Your task to perform on an android device: Go to location settings Image 0: 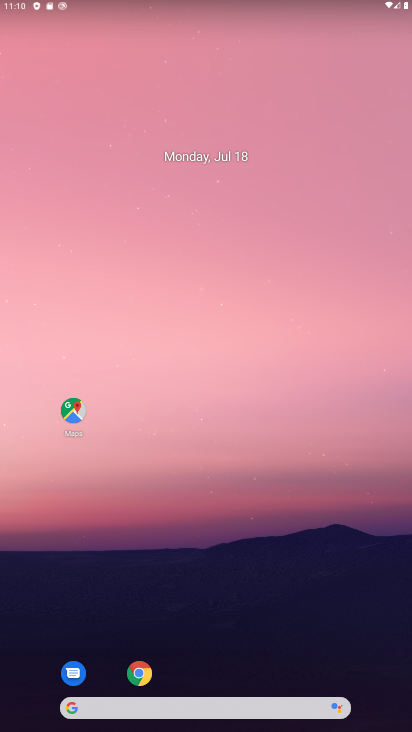
Step 0: drag from (218, 267) to (254, 0)
Your task to perform on an android device: Go to location settings Image 1: 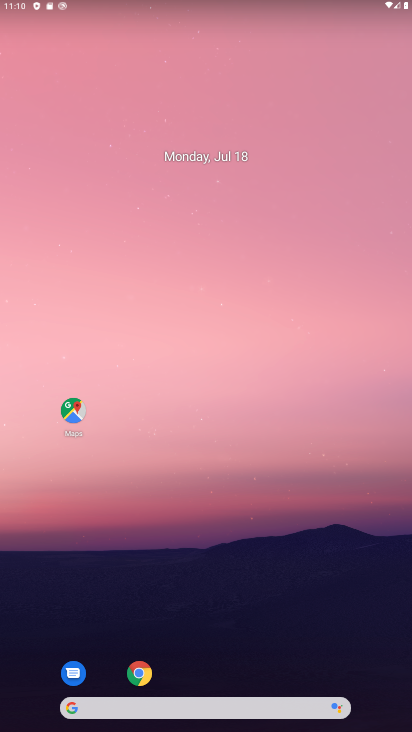
Step 1: drag from (219, 679) to (219, 37)
Your task to perform on an android device: Go to location settings Image 2: 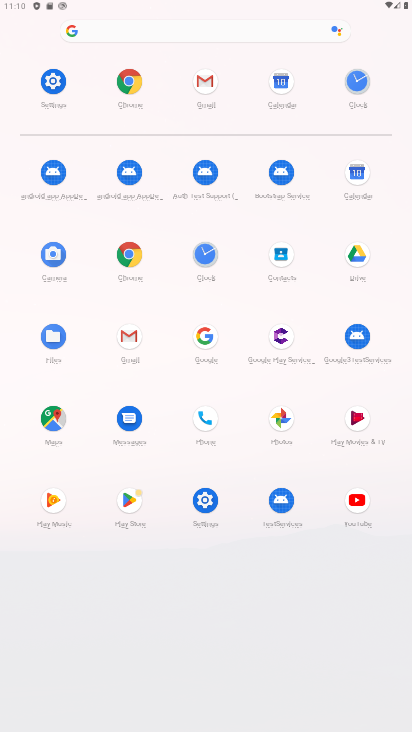
Step 2: click (49, 77)
Your task to perform on an android device: Go to location settings Image 3: 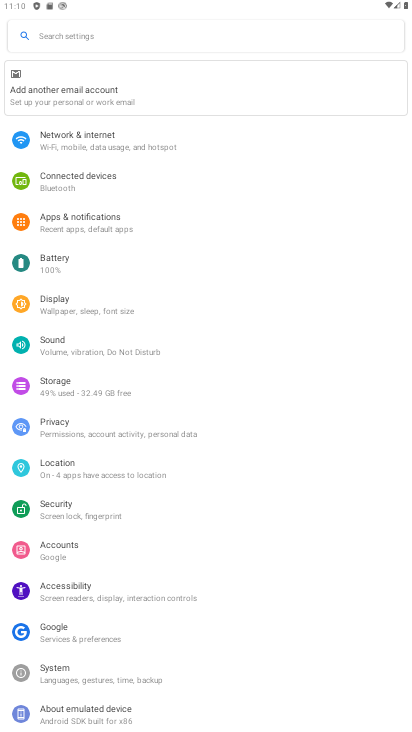
Step 3: click (86, 462)
Your task to perform on an android device: Go to location settings Image 4: 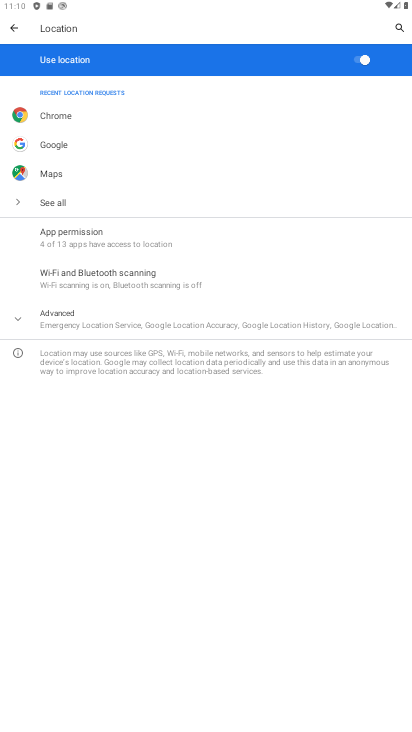
Step 4: click (21, 314)
Your task to perform on an android device: Go to location settings Image 5: 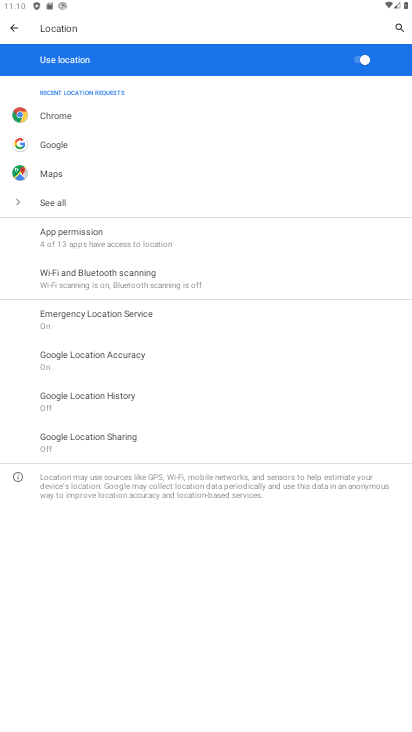
Step 5: task complete